Your task to perform on an android device: turn smart compose on in the gmail app Image 0: 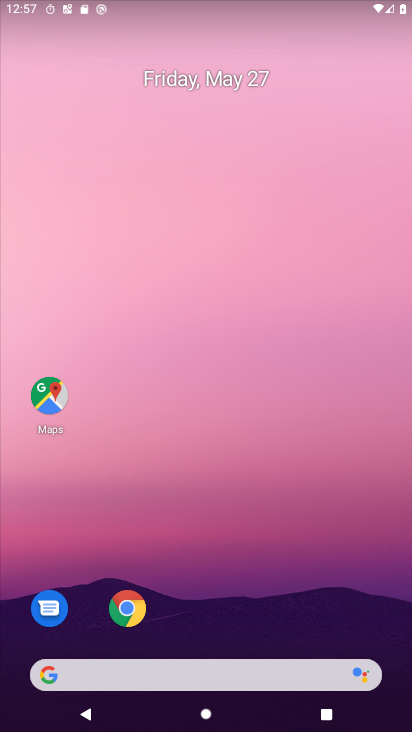
Step 0: drag from (96, 340) to (376, 295)
Your task to perform on an android device: turn smart compose on in the gmail app Image 1: 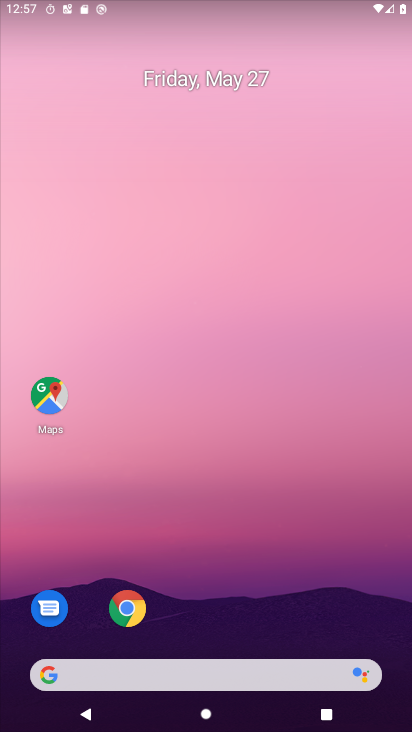
Step 1: click (385, 262)
Your task to perform on an android device: turn smart compose on in the gmail app Image 2: 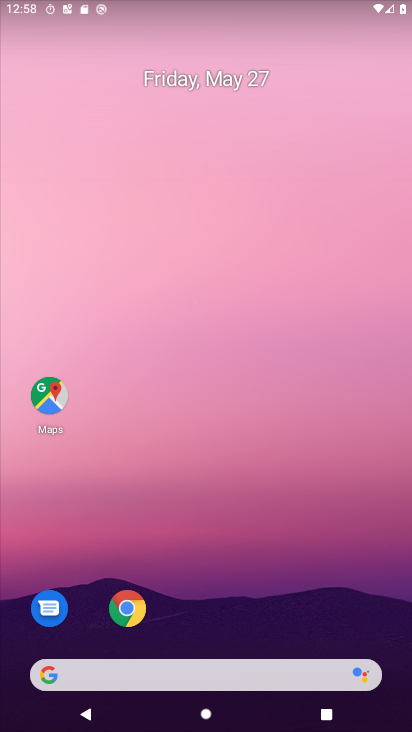
Step 2: drag from (383, 592) to (355, 126)
Your task to perform on an android device: turn smart compose on in the gmail app Image 3: 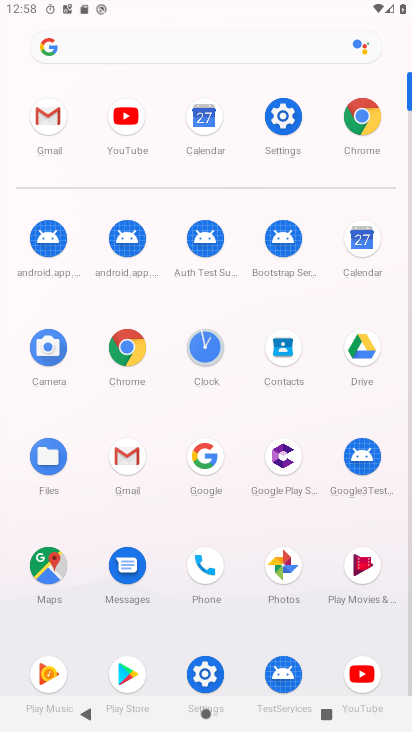
Step 3: click (129, 465)
Your task to perform on an android device: turn smart compose on in the gmail app Image 4: 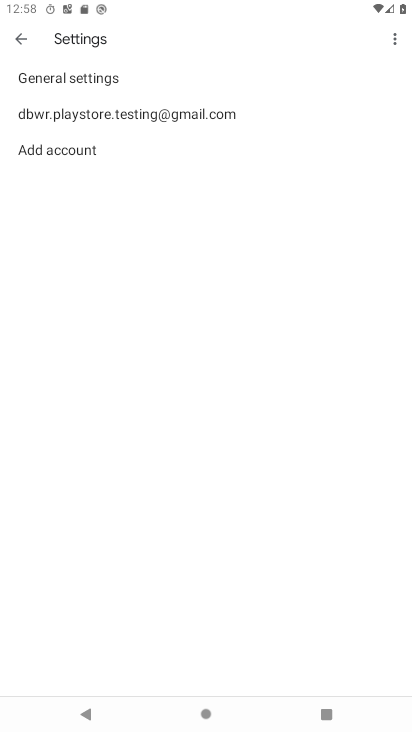
Step 4: click (43, 107)
Your task to perform on an android device: turn smart compose on in the gmail app Image 5: 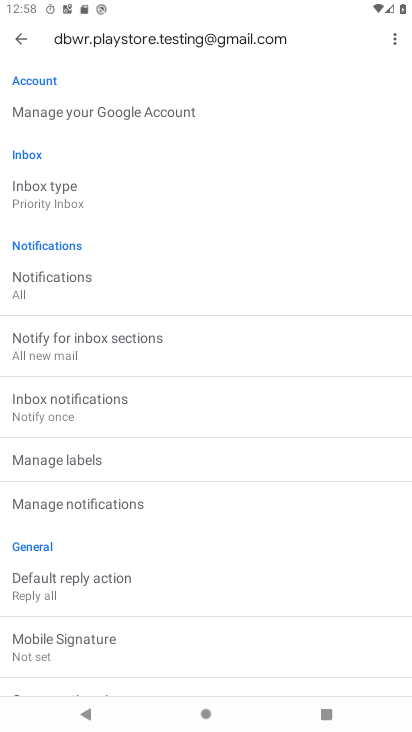
Step 5: task complete